Your task to perform on an android device: Go to Reddit.com Image 0: 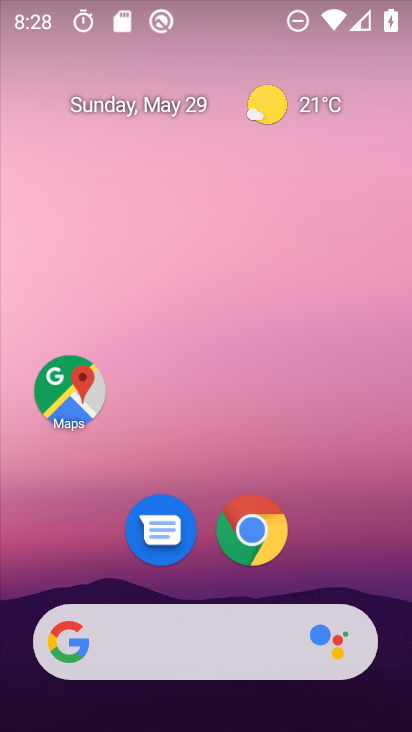
Step 0: drag from (254, 640) to (290, 155)
Your task to perform on an android device: Go to Reddit.com Image 1: 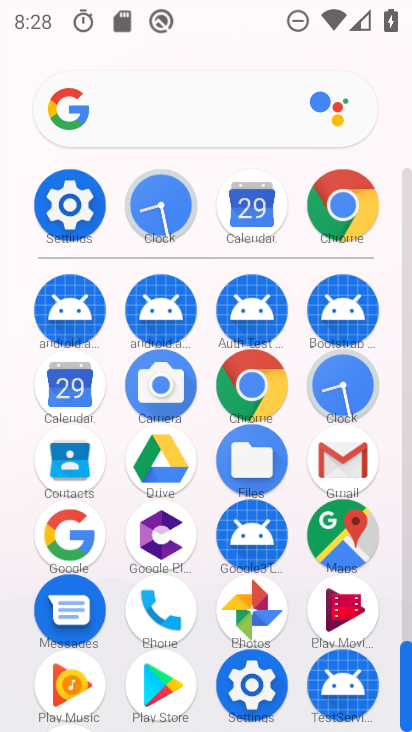
Step 1: click (323, 212)
Your task to perform on an android device: Go to Reddit.com Image 2: 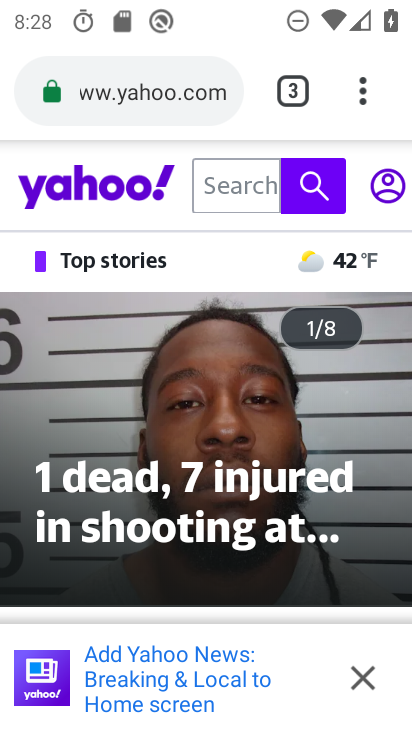
Step 2: click (355, 87)
Your task to perform on an android device: Go to Reddit.com Image 3: 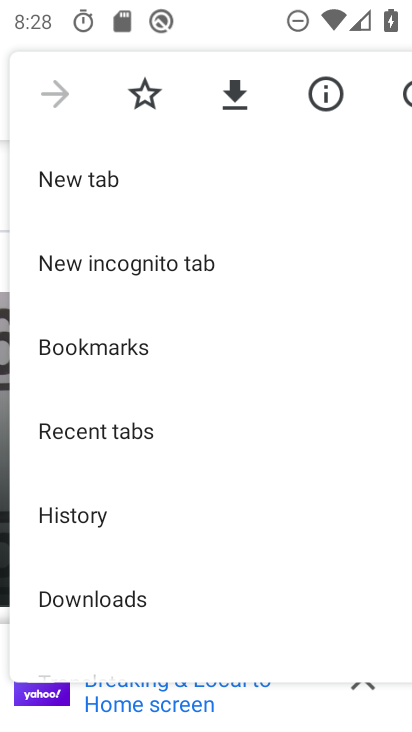
Step 3: click (91, 189)
Your task to perform on an android device: Go to Reddit.com Image 4: 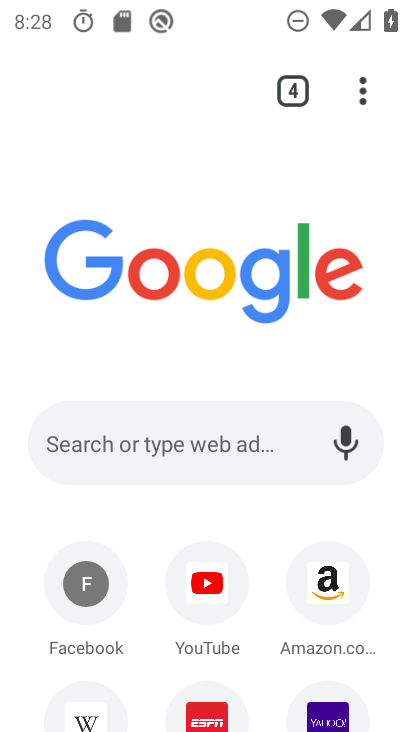
Step 4: click (160, 418)
Your task to perform on an android device: Go to Reddit.com Image 5: 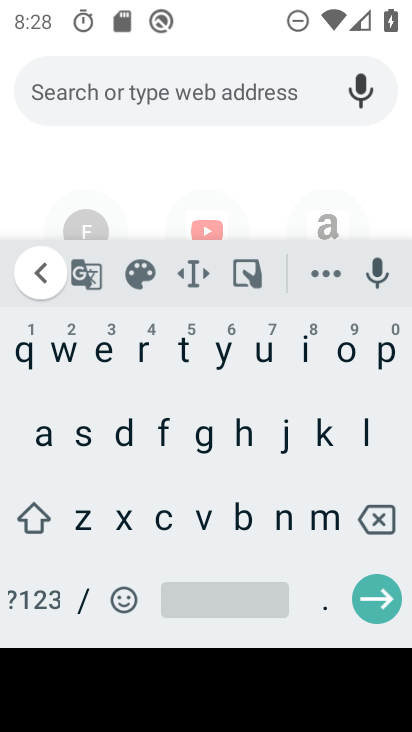
Step 5: click (141, 352)
Your task to perform on an android device: Go to Reddit.com Image 6: 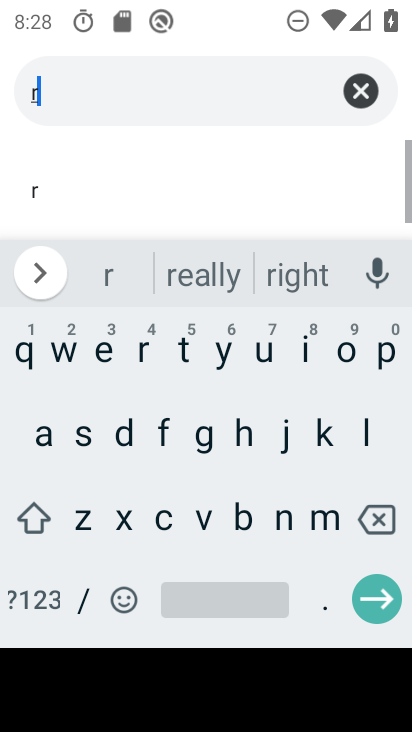
Step 6: click (94, 353)
Your task to perform on an android device: Go to Reddit.com Image 7: 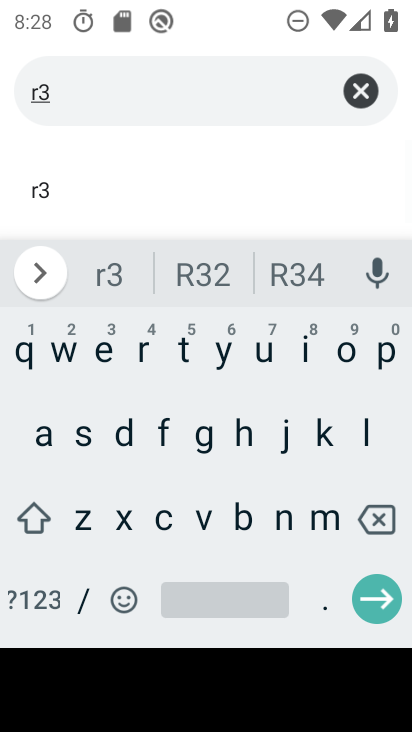
Step 7: click (386, 521)
Your task to perform on an android device: Go to Reddit.com Image 8: 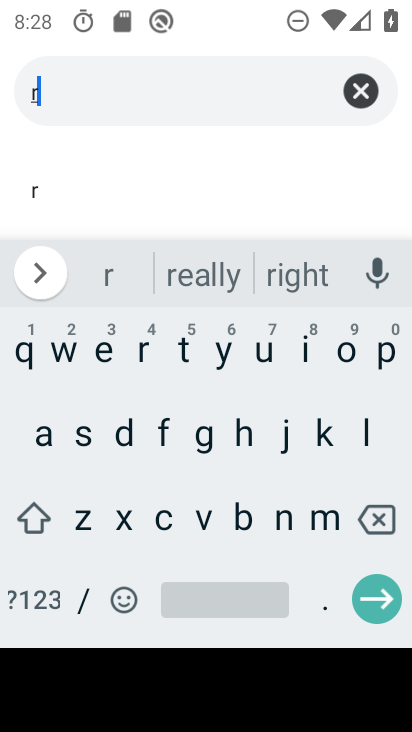
Step 8: click (101, 351)
Your task to perform on an android device: Go to Reddit.com Image 9: 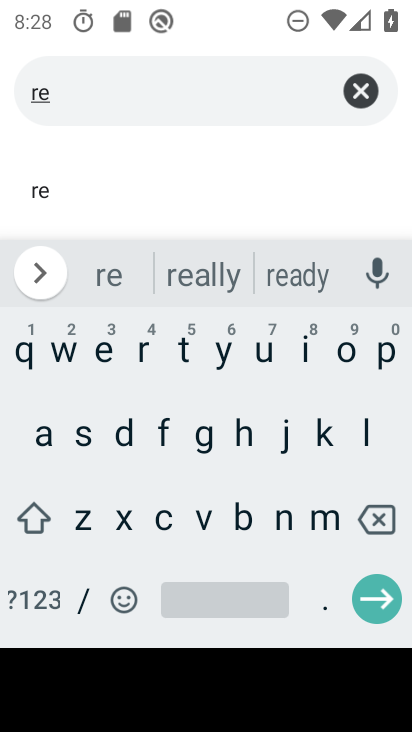
Step 9: click (127, 450)
Your task to perform on an android device: Go to Reddit.com Image 10: 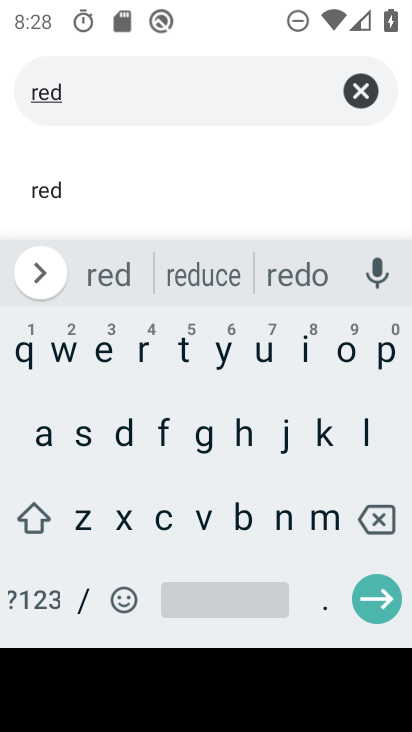
Step 10: click (122, 434)
Your task to perform on an android device: Go to Reddit.com Image 11: 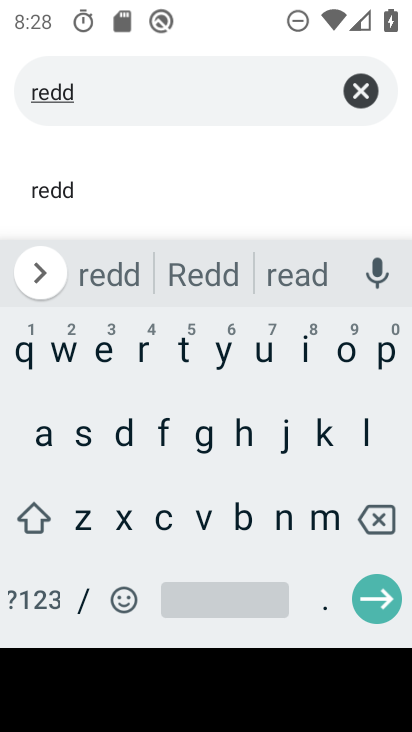
Step 11: click (306, 345)
Your task to perform on an android device: Go to Reddit.com Image 12: 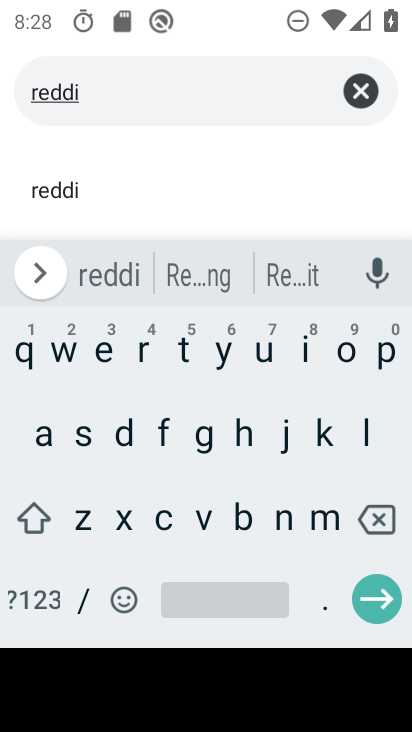
Step 12: click (286, 277)
Your task to perform on an android device: Go to Reddit.com Image 13: 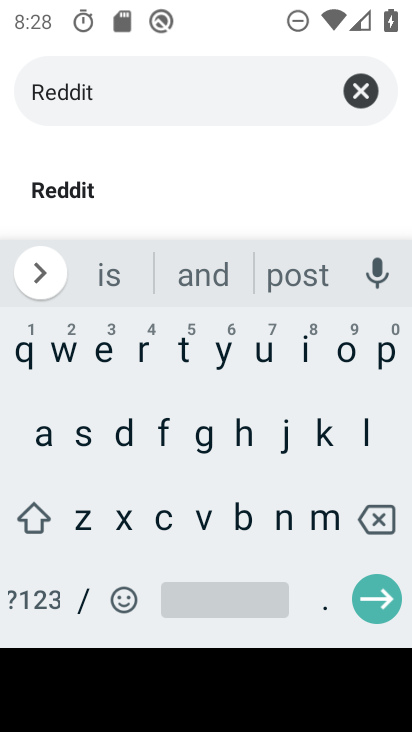
Step 13: click (328, 601)
Your task to perform on an android device: Go to Reddit.com Image 14: 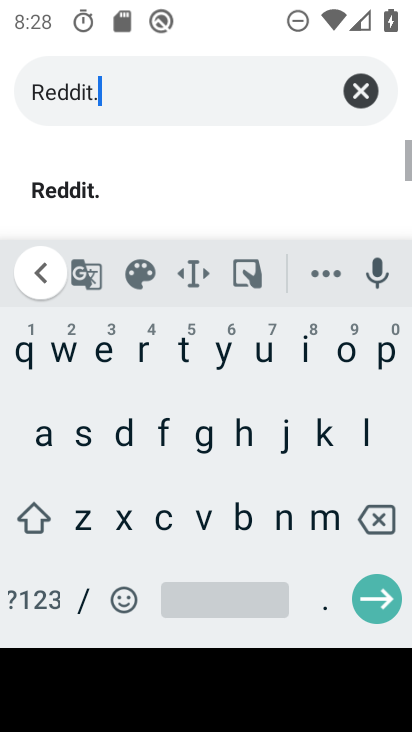
Step 14: click (165, 513)
Your task to perform on an android device: Go to Reddit.com Image 15: 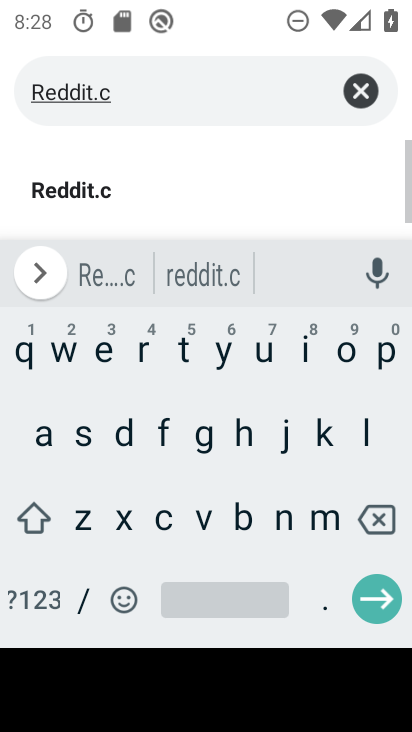
Step 15: click (350, 357)
Your task to perform on an android device: Go to Reddit.com Image 16: 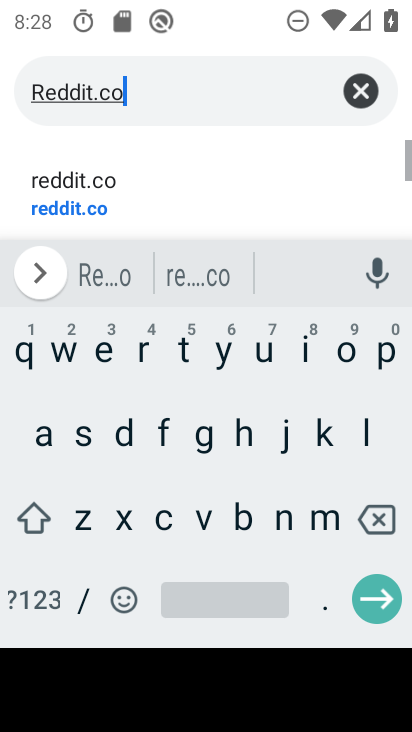
Step 16: click (325, 521)
Your task to perform on an android device: Go to Reddit.com Image 17: 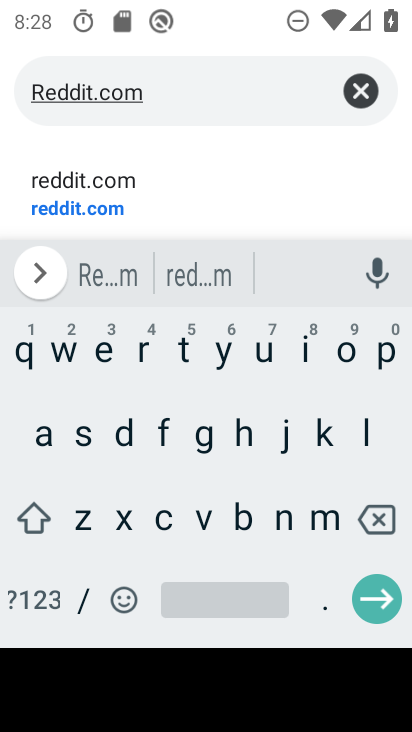
Step 17: click (379, 595)
Your task to perform on an android device: Go to Reddit.com Image 18: 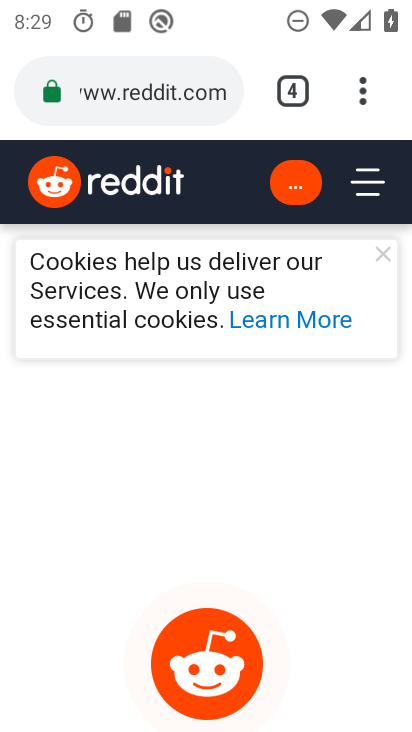
Step 18: task complete